Your task to perform on an android device: turn off notifications in google photos Image 0: 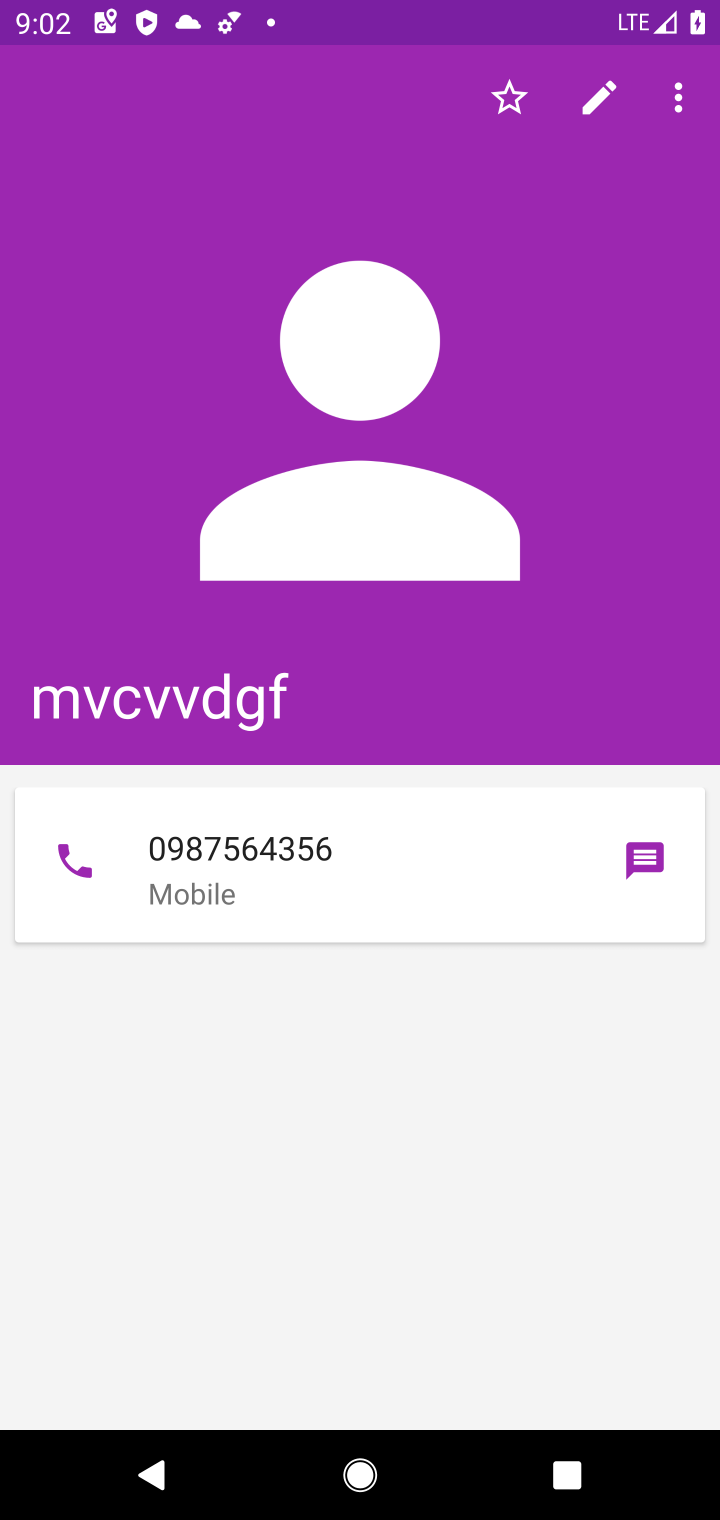
Step 0: press home button
Your task to perform on an android device: turn off notifications in google photos Image 1: 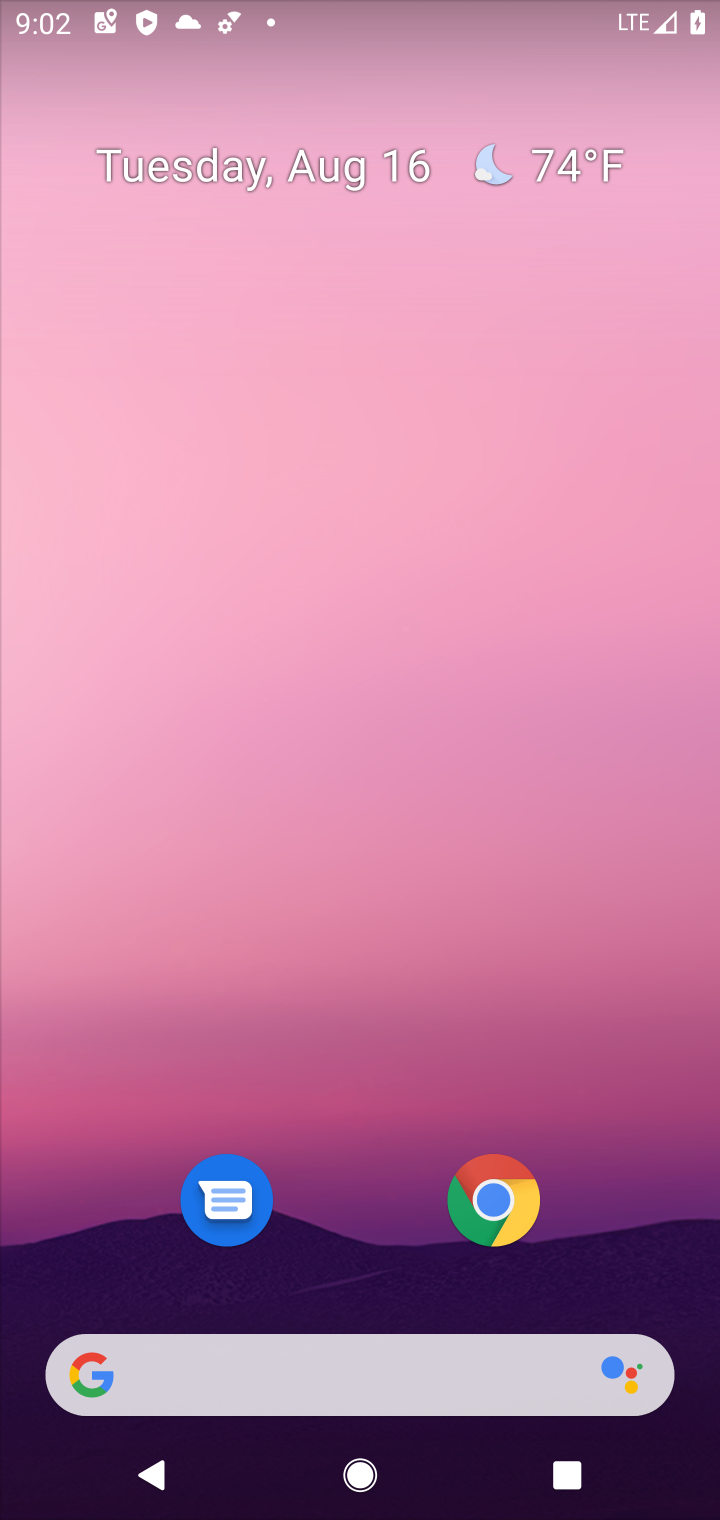
Step 1: drag from (655, 1269) to (598, 225)
Your task to perform on an android device: turn off notifications in google photos Image 2: 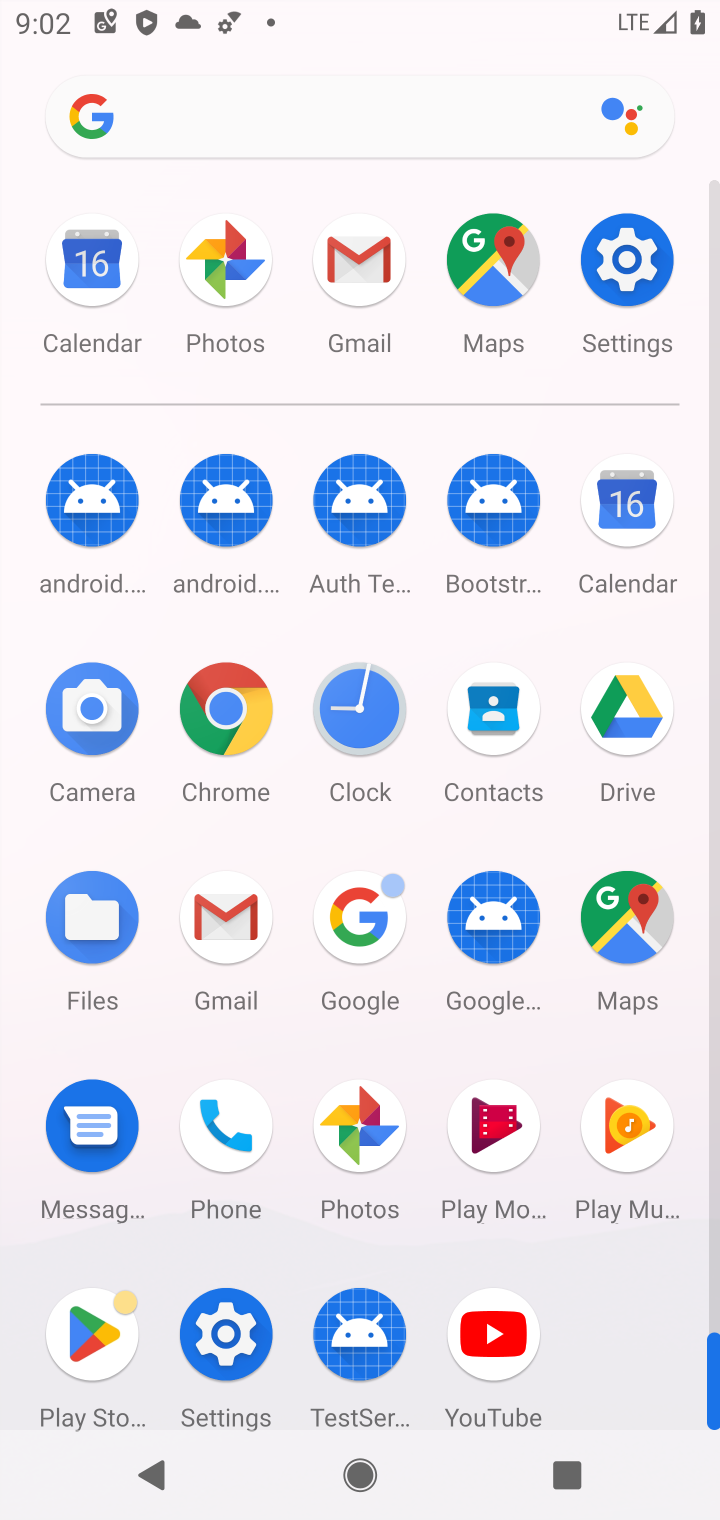
Step 2: click (355, 1124)
Your task to perform on an android device: turn off notifications in google photos Image 3: 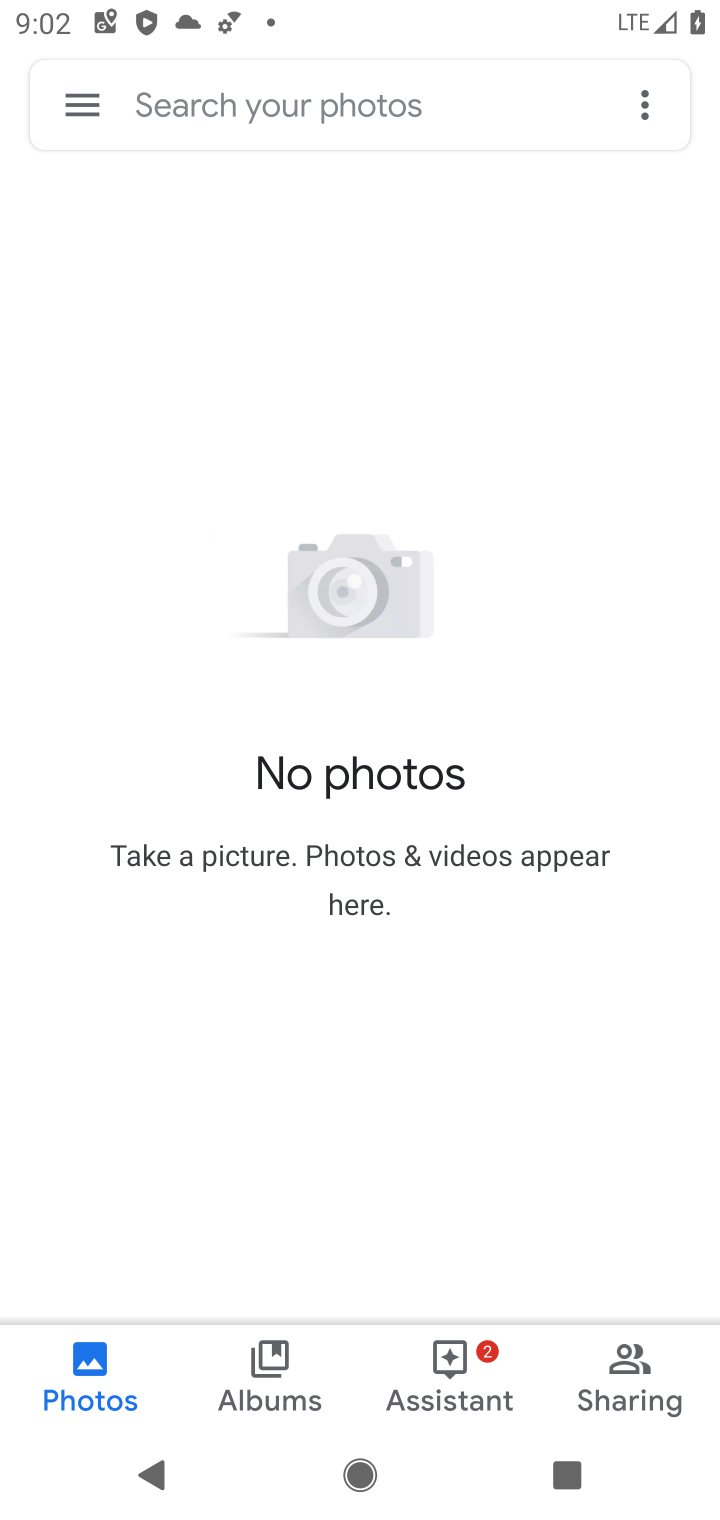
Step 3: click (75, 98)
Your task to perform on an android device: turn off notifications in google photos Image 4: 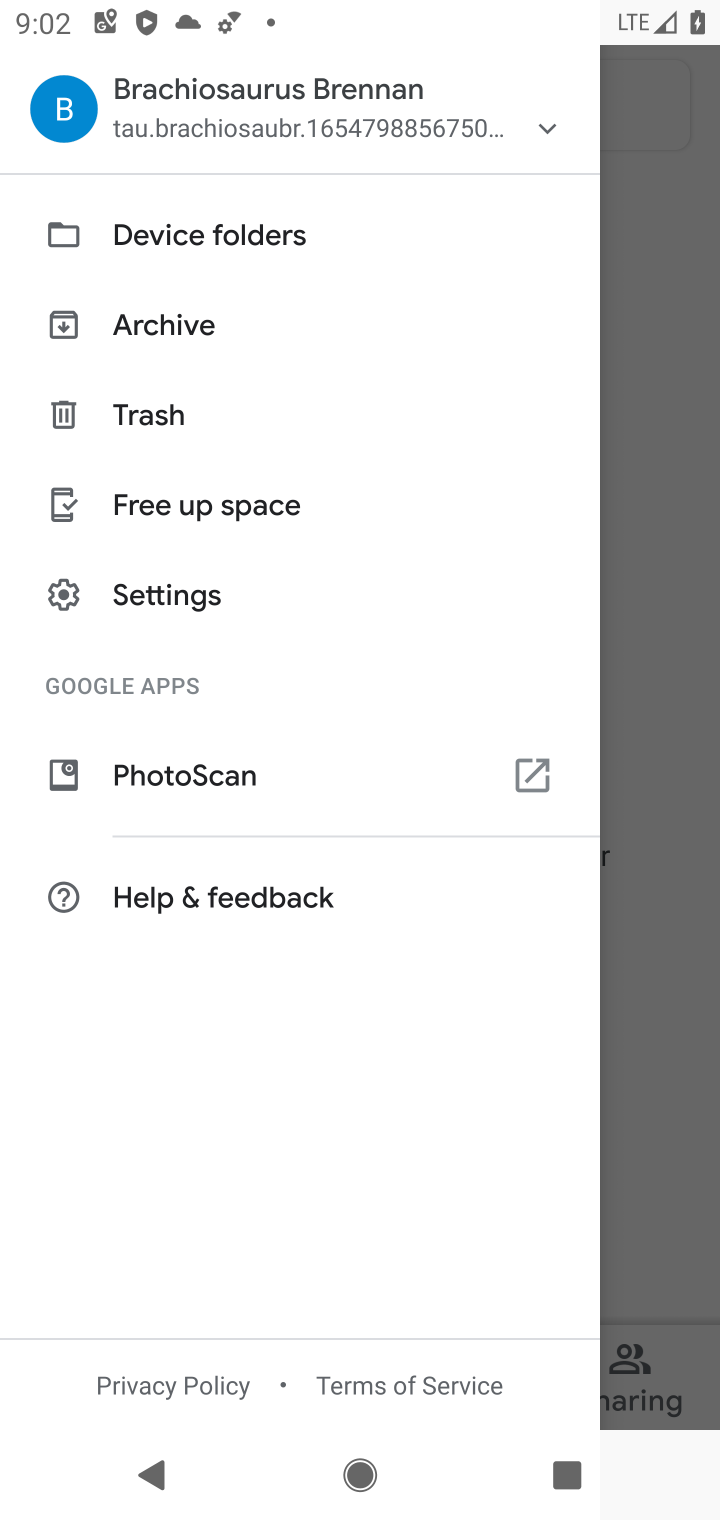
Step 4: click (160, 596)
Your task to perform on an android device: turn off notifications in google photos Image 5: 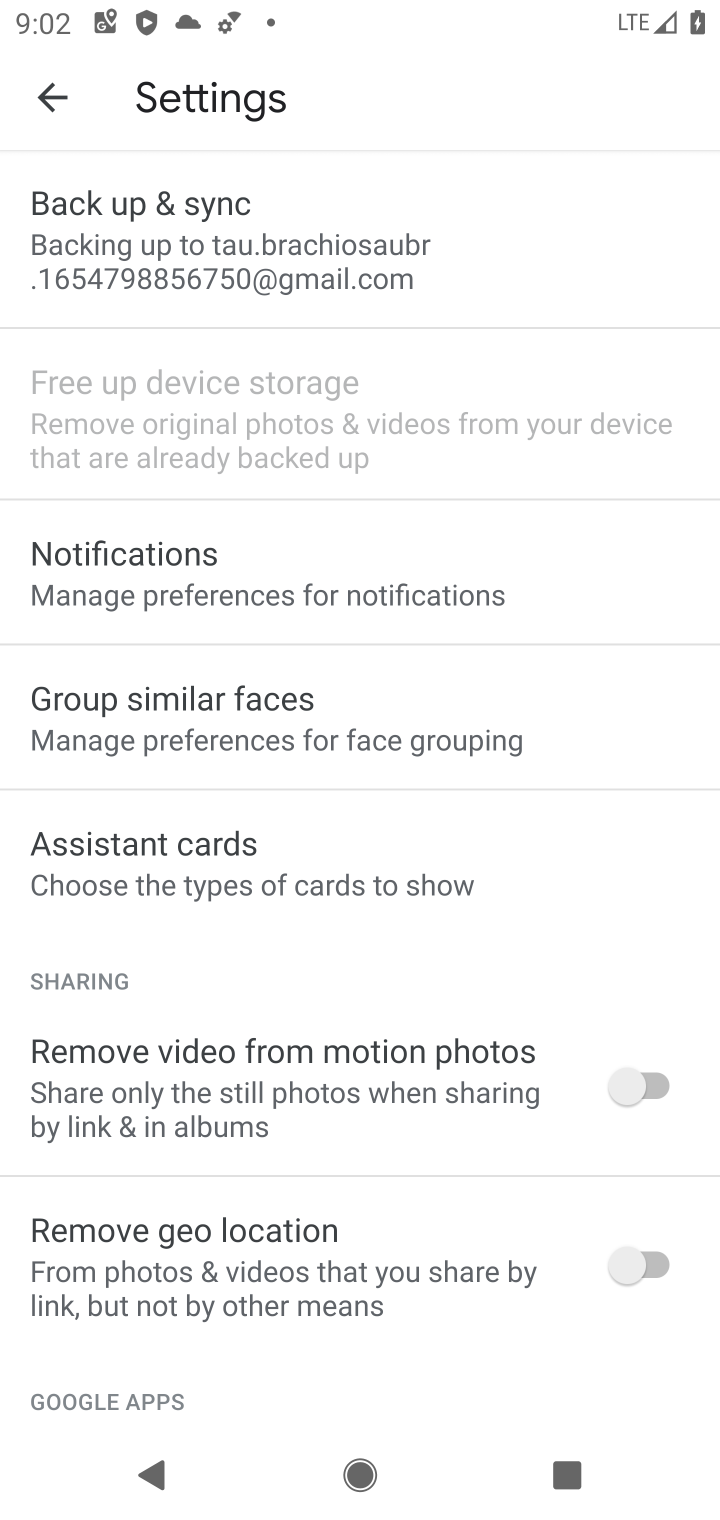
Step 5: click (160, 596)
Your task to perform on an android device: turn off notifications in google photos Image 6: 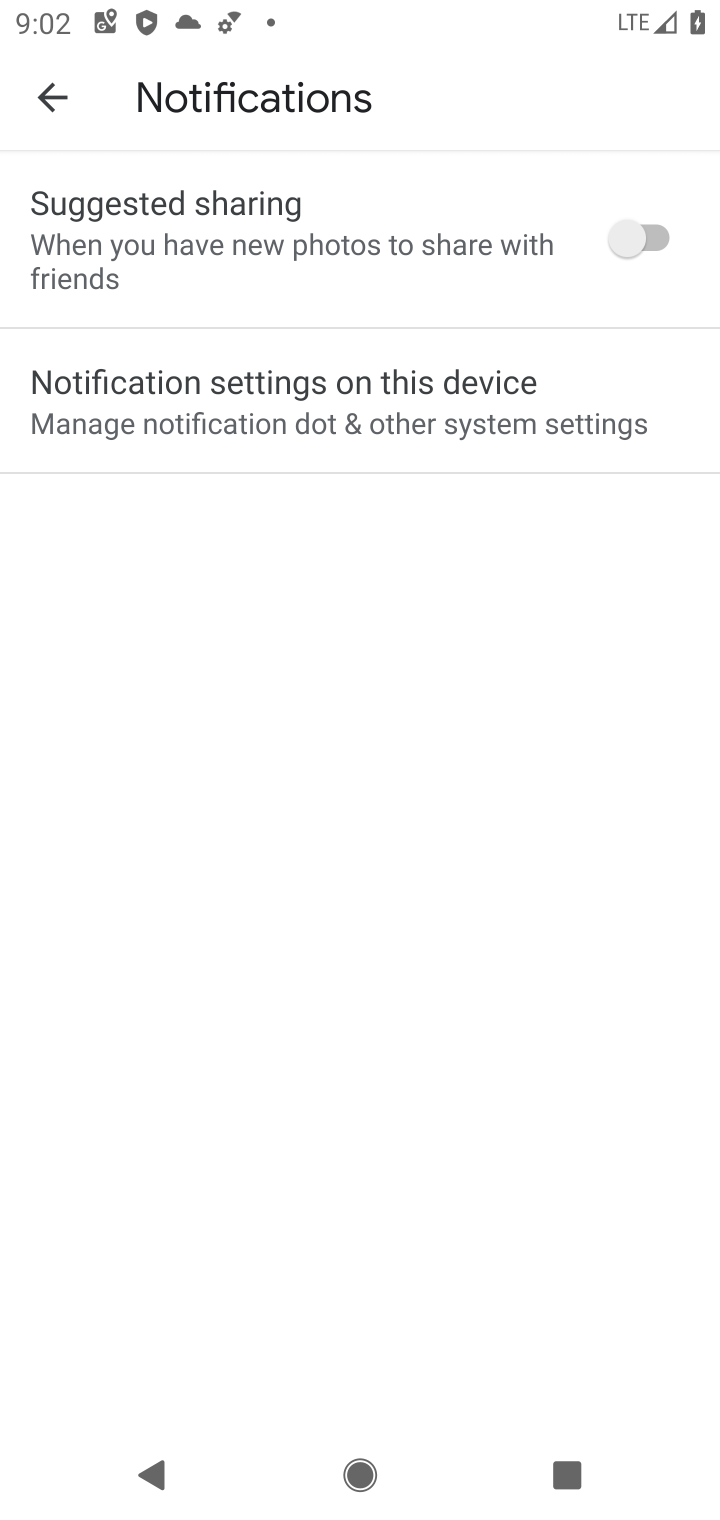
Step 6: click (234, 388)
Your task to perform on an android device: turn off notifications in google photos Image 7: 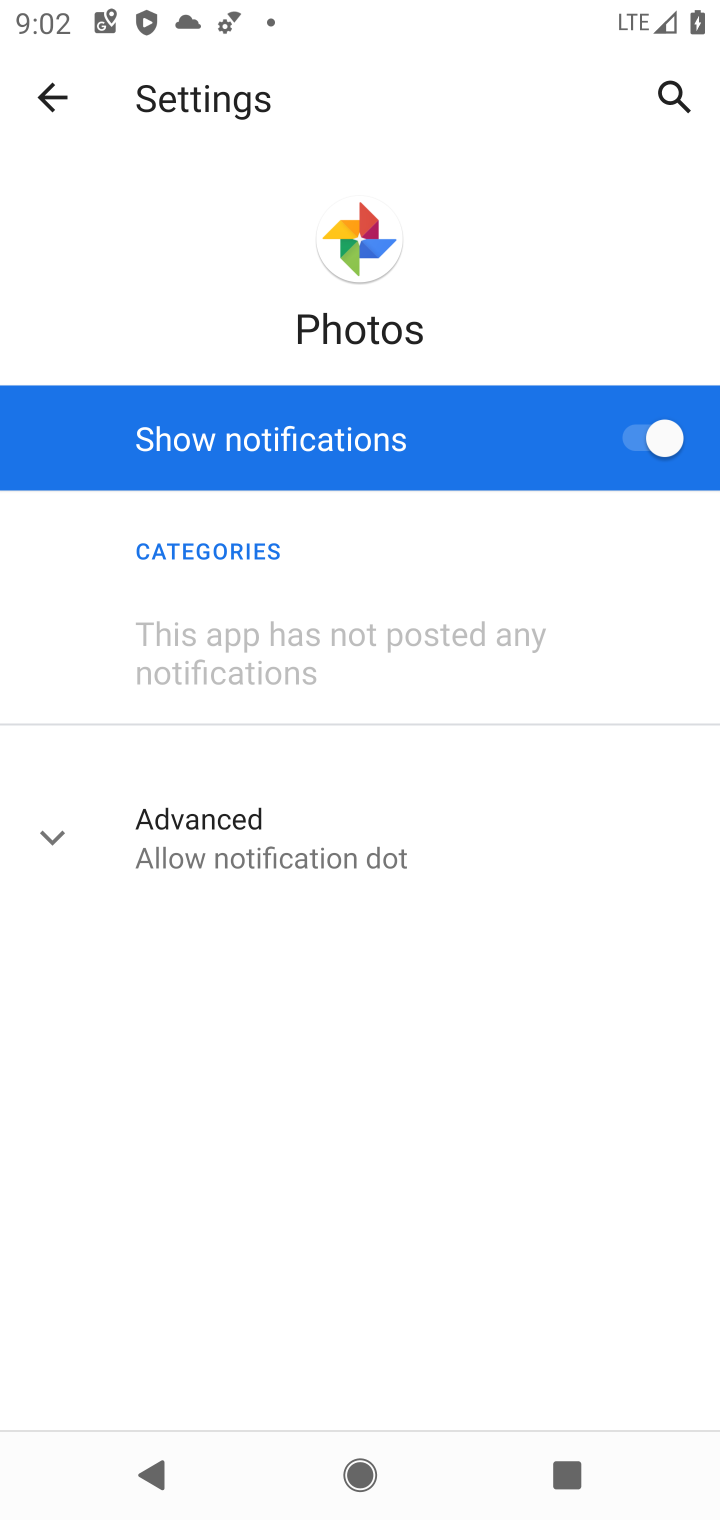
Step 7: click (627, 426)
Your task to perform on an android device: turn off notifications in google photos Image 8: 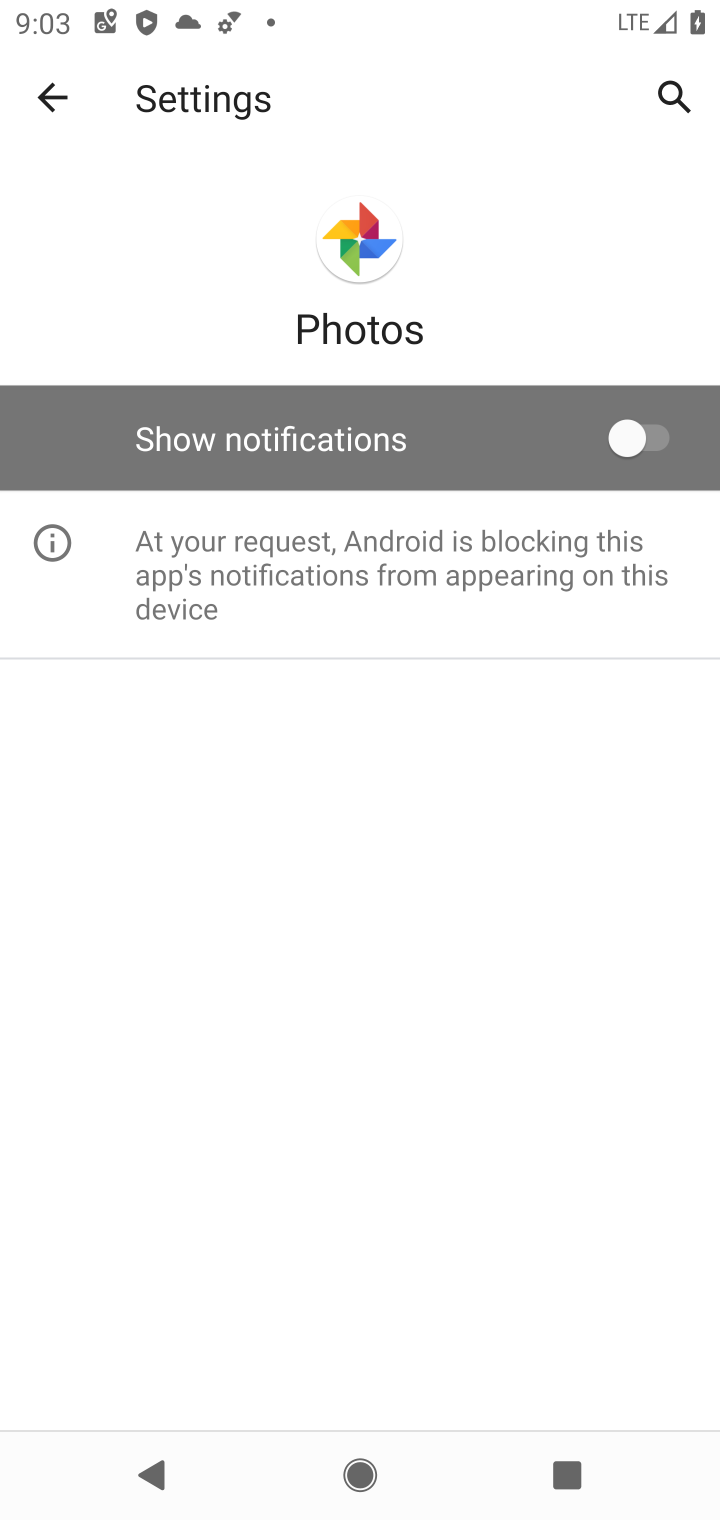
Step 8: task complete